Your task to perform on an android device: open a bookmark in the chrome app Image 0: 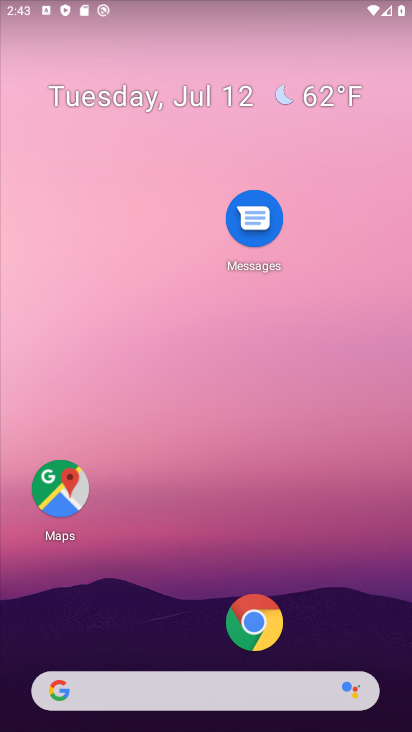
Step 0: press home button
Your task to perform on an android device: open a bookmark in the chrome app Image 1: 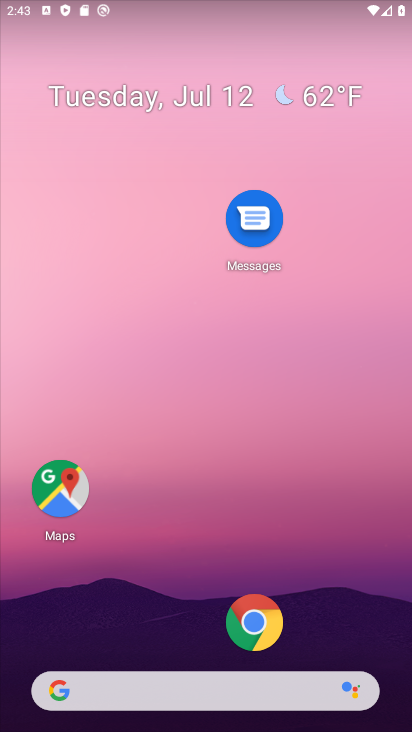
Step 1: click (249, 614)
Your task to perform on an android device: open a bookmark in the chrome app Image 2: 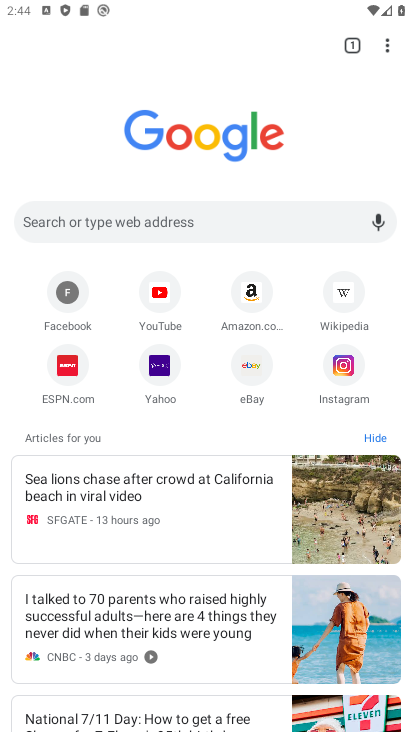
Step 2: click (385, 42)
Your task to perform on an android device: open a bookmark in the chrome app Image 3: 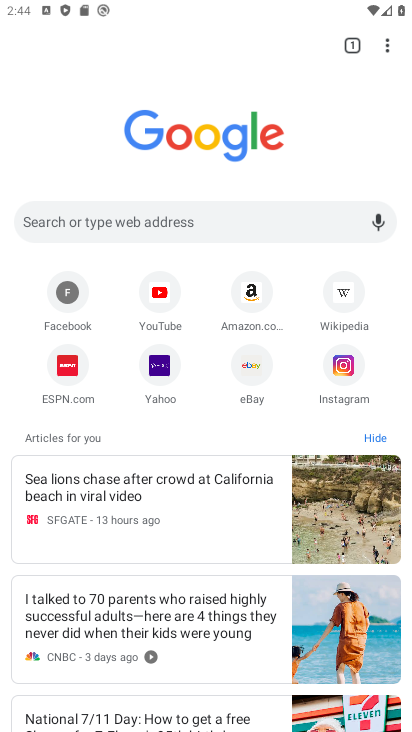
Step 3: click (385, 41)
Your task to perform on an android device: open a bookmark in the chrome app Image 4: 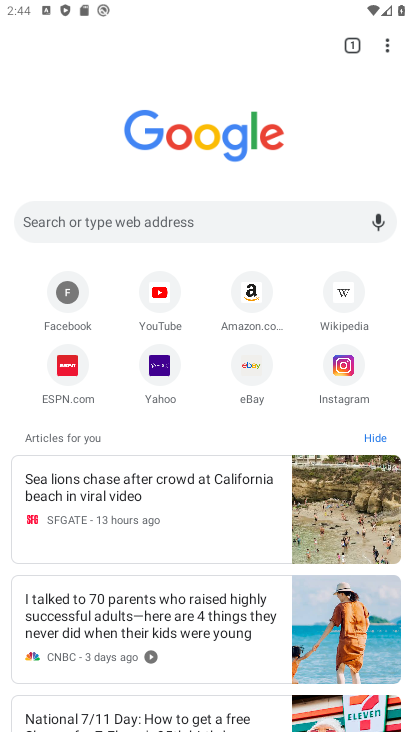
Step 4: click (385, 41)
Your task to perform on an android device: open a bookmark in the chrome app Image 5: 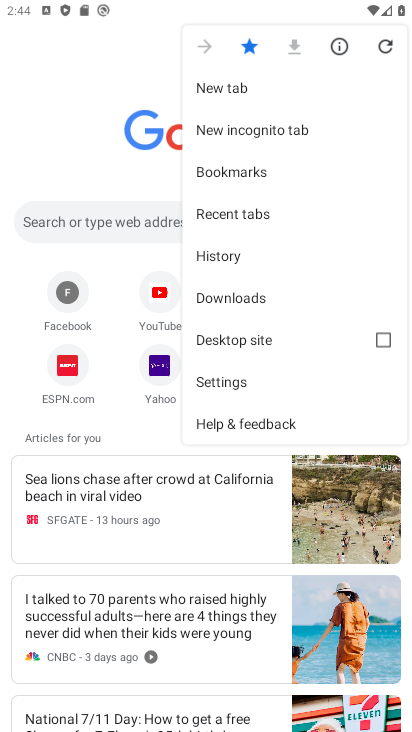
Step 5: click (274, 170)
Your task to perform on an android device: open a bookmark in the chrome app Image 6: 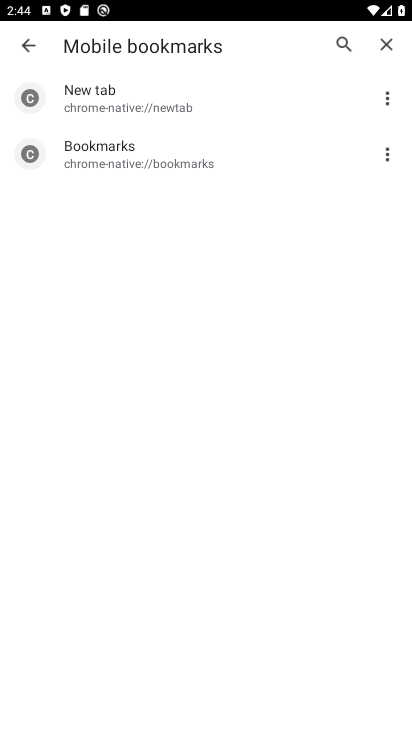
Step 6: task complete